Your task to perform on an android device: Set the phone to "Do not disturb". Image 0: 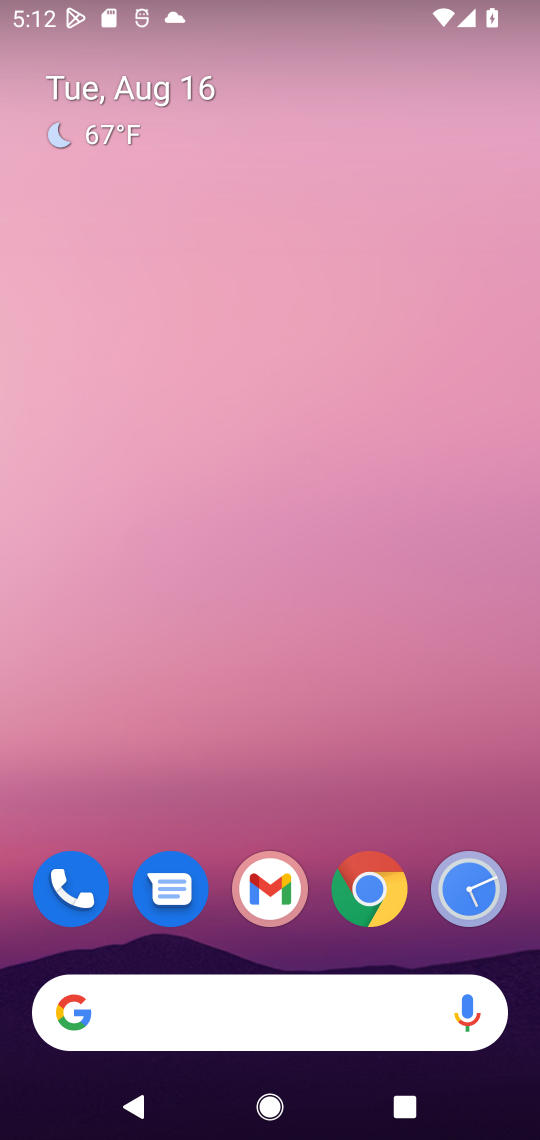
Step 0: drag from (293, 0) to (337, 682)
Your task to perform on an android device: Set the phone to "Do not disturb". Image 1: 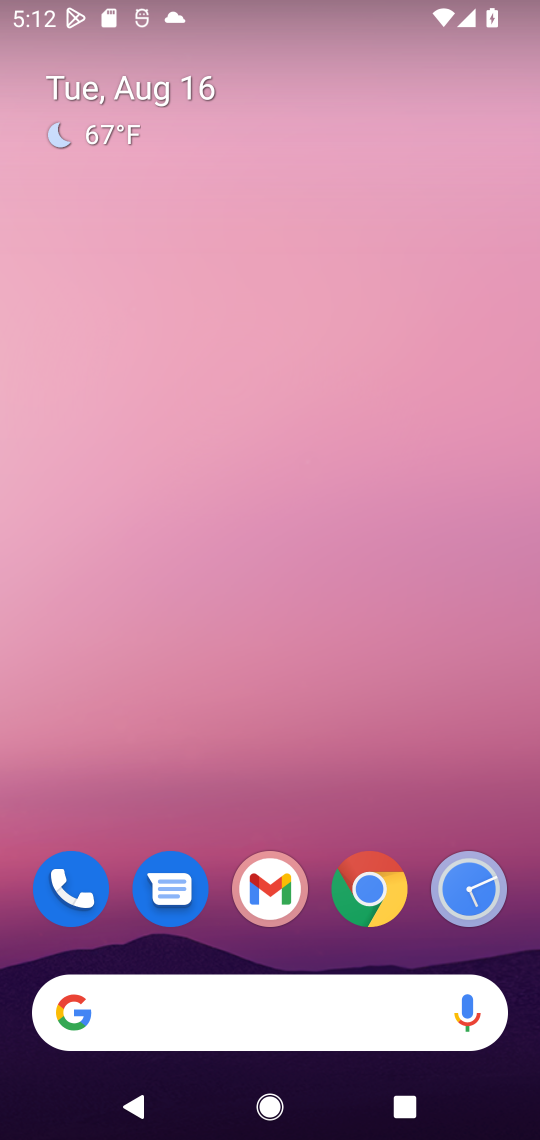
Step 1: task complete